Your task to perform on an android device: Open calendar and show me the first week of next month Image 0: 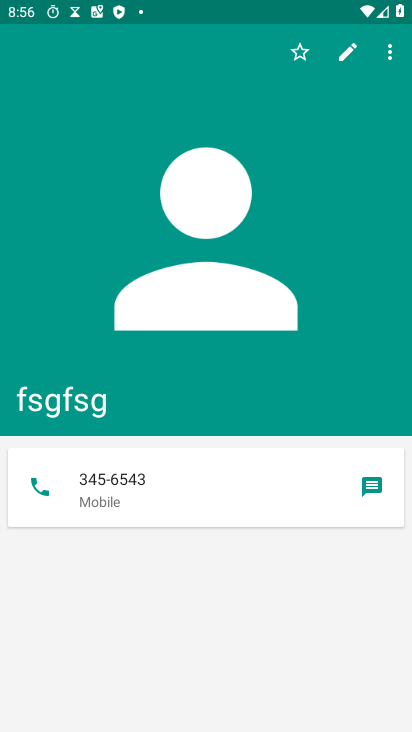
Step 0: press home button
Your task to perform on an android device: Open calendar and show me the first week of next month Image 1: 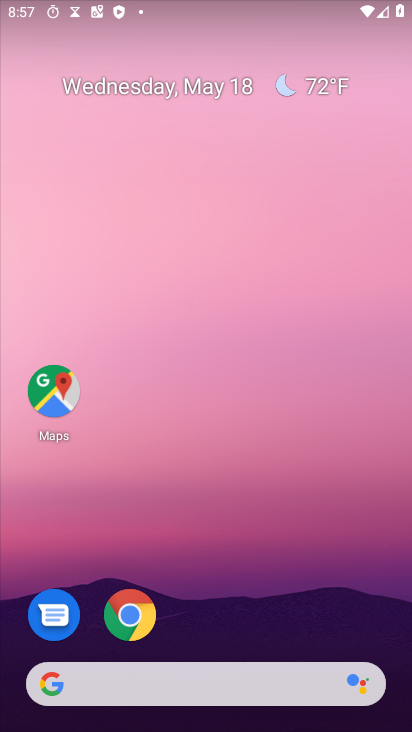
Step 1: click (179, 81)
Your task to perform on an android device: Open calendar and show me the first week of next month Image 2: 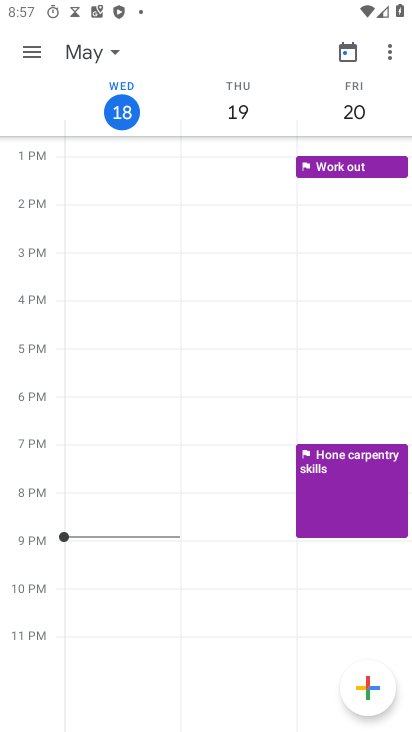
Step 2: click (28, 47)
Your task to perform on an android device: Open calendar and show me the first week of next month Image 3: 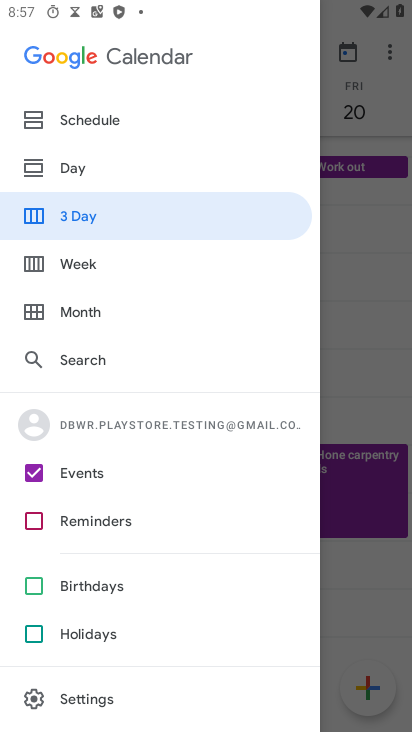
Step 3: click (85, 264)
Your task to perform on an android device: Open calendar and show me the first week of next month Image 4: 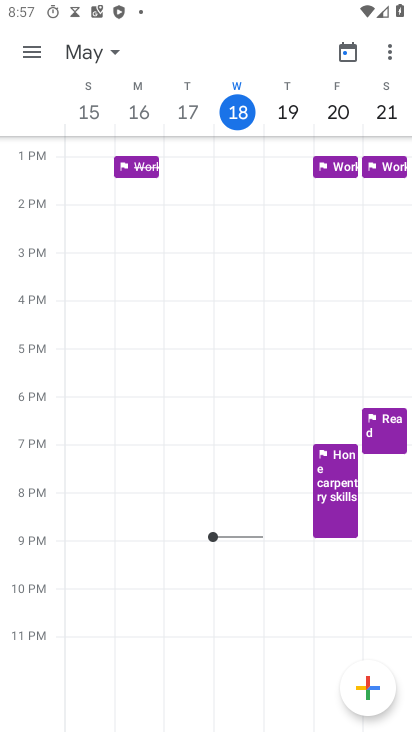
Step 4: click (97, 48)
Your task to perform on an android device: Open calendar and show me the first week of next month Image 5: 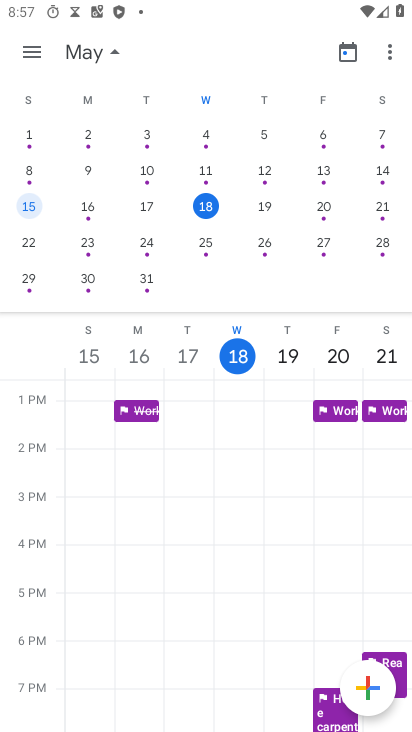
Step 5: task complete